Your task to perform on an android device: open app "VLC for Android" (install if not already installed) Image 0: 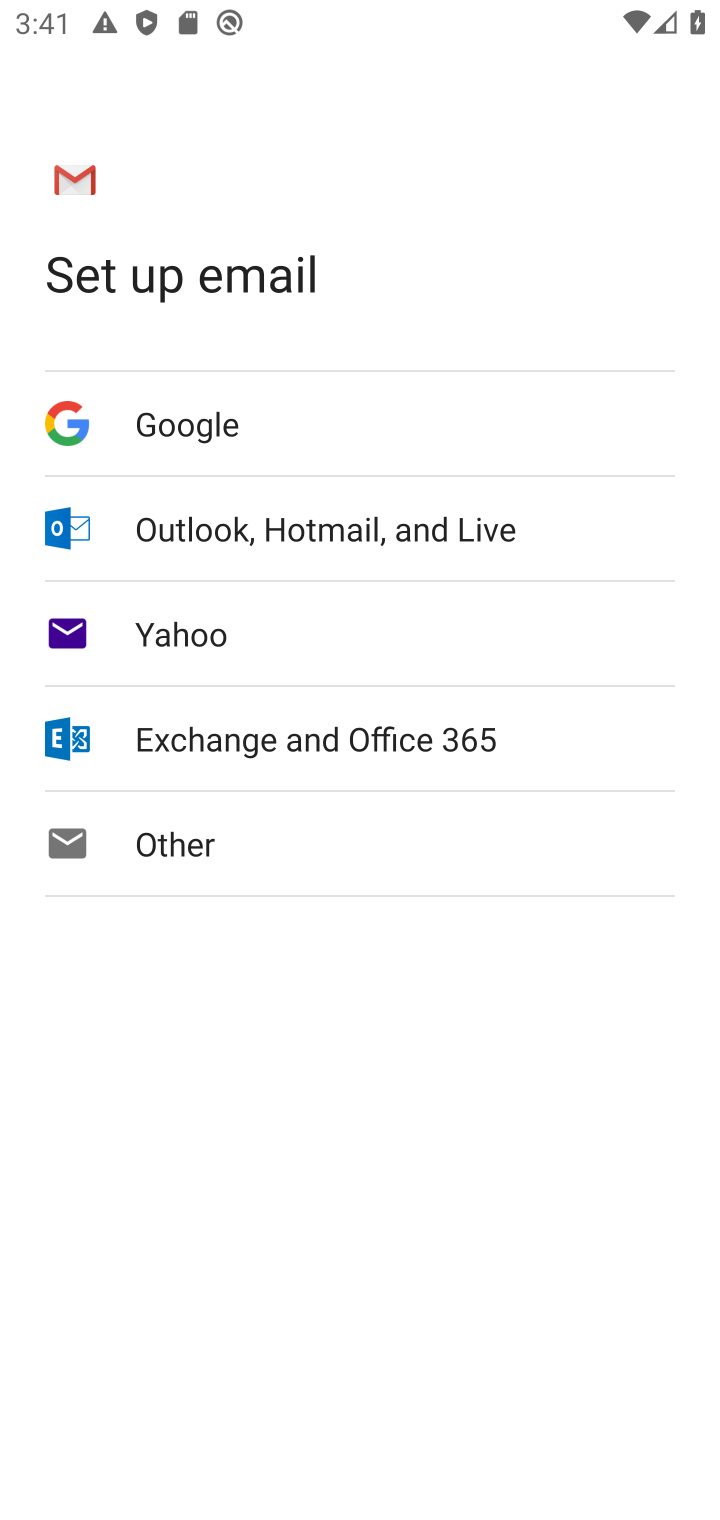
Step 0: press home button
Your task to perform on an android device: open app "VLC for Android" (install if not already installed) Image 1: 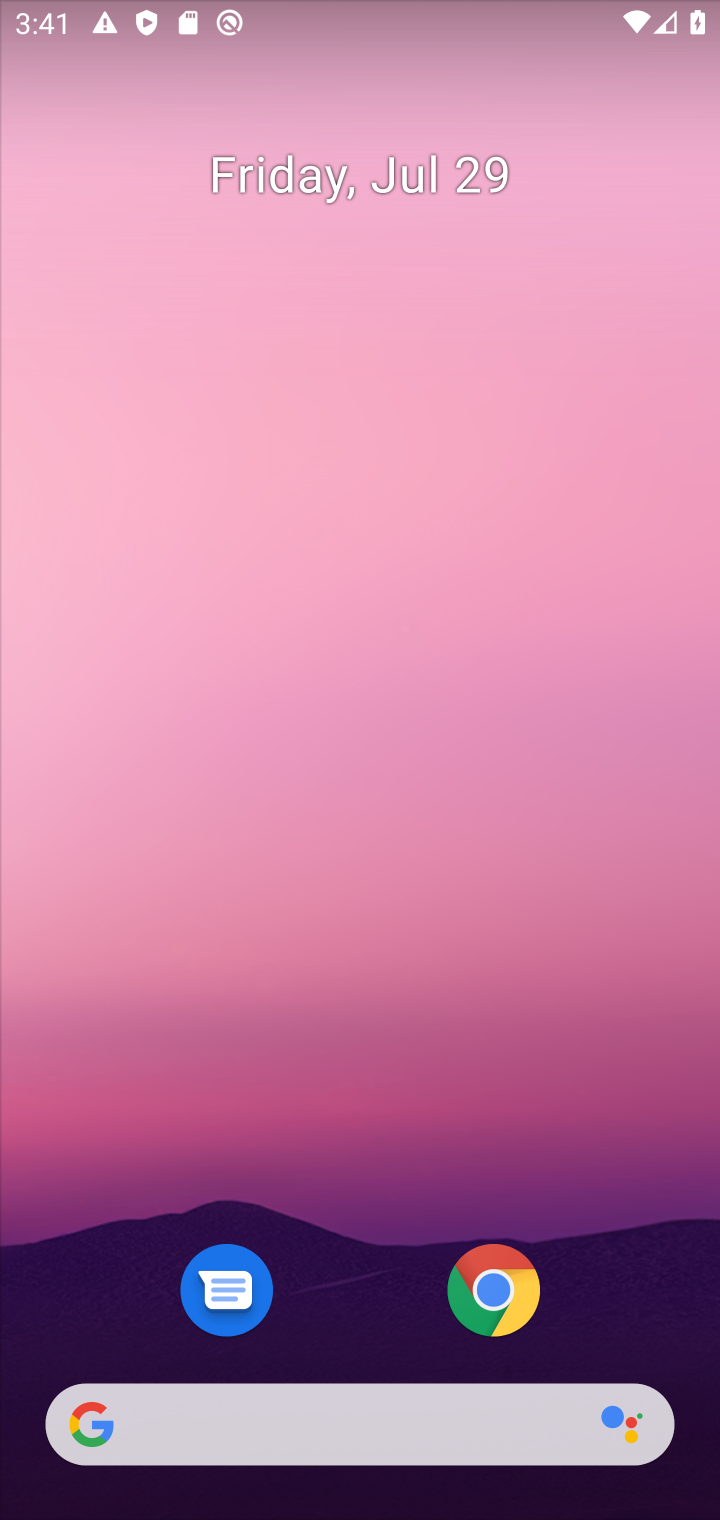
Step 1: drag from (445, 9) to (295, 1472)
Your task to perform on an android device: open app "VLC for Android" (install if not already installed) Image 2: 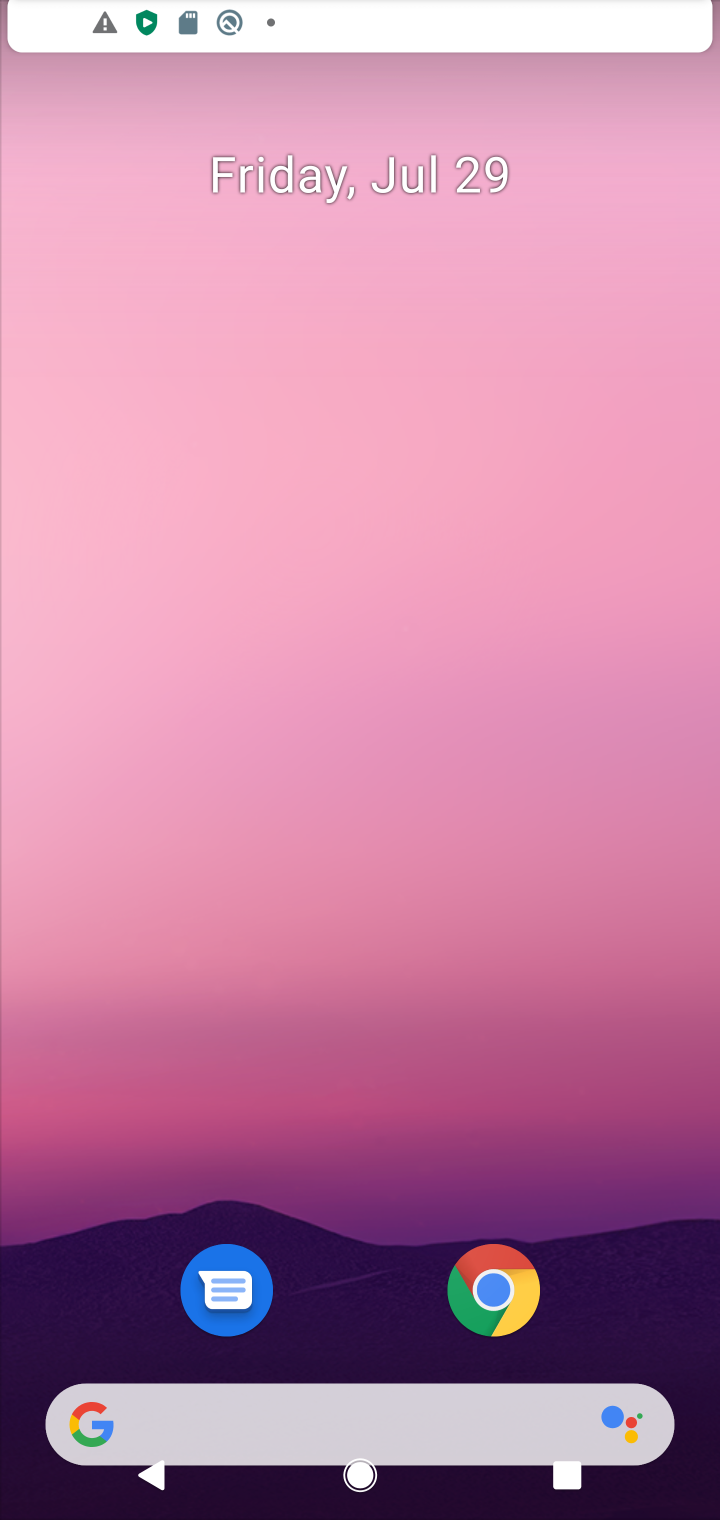
Step 2: drag from (391, 579) to (391, 232)
Your task to perform on an android device: open app "VLC for Android" (install if not already installed) Image 3: 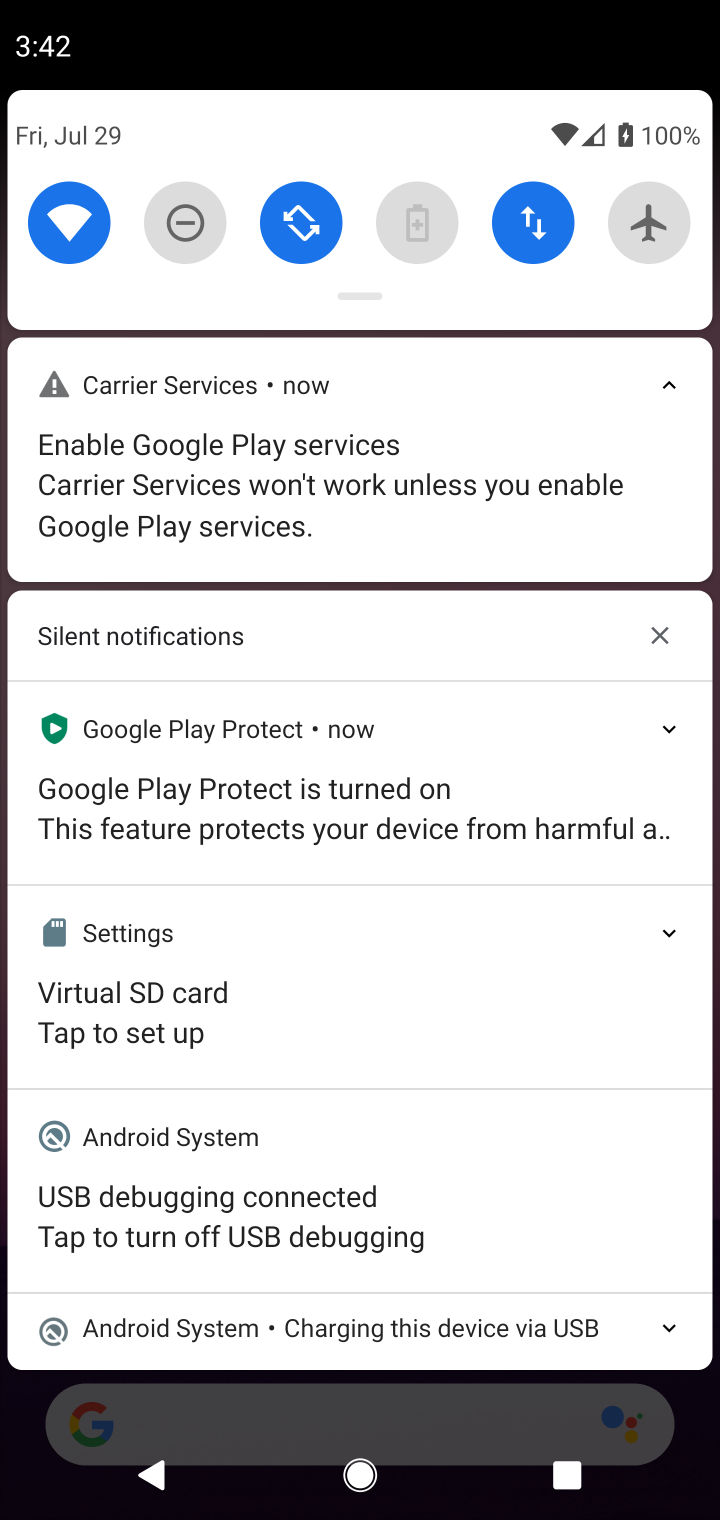
Step 3: press back button
Your task to perform on an android device: open app "VLC for Android" (install if not already installed) Image 4: 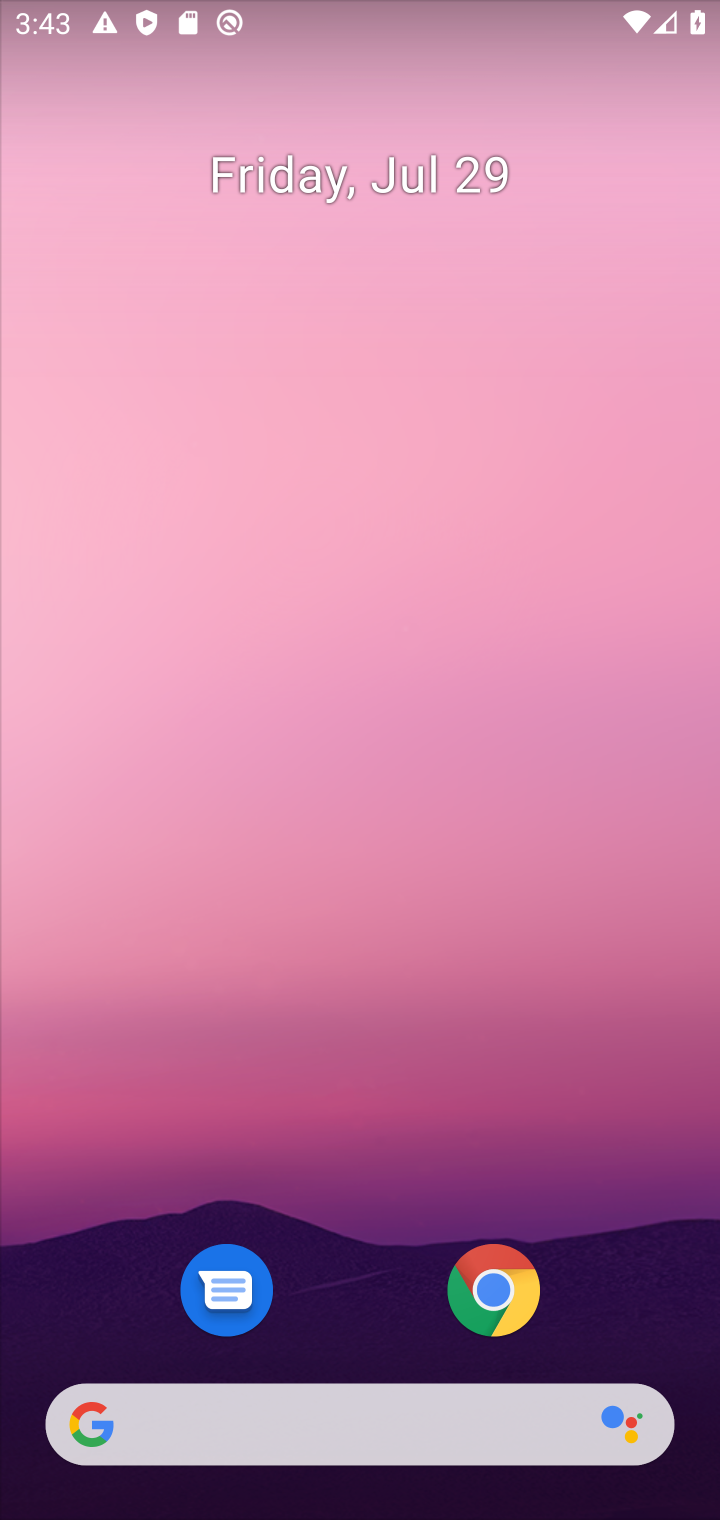
Step 4: drag from (557, 1402) to (549, 597)
Your task to perform on an android device: open app "VLC for Android" (install if not already installed) Image 5: 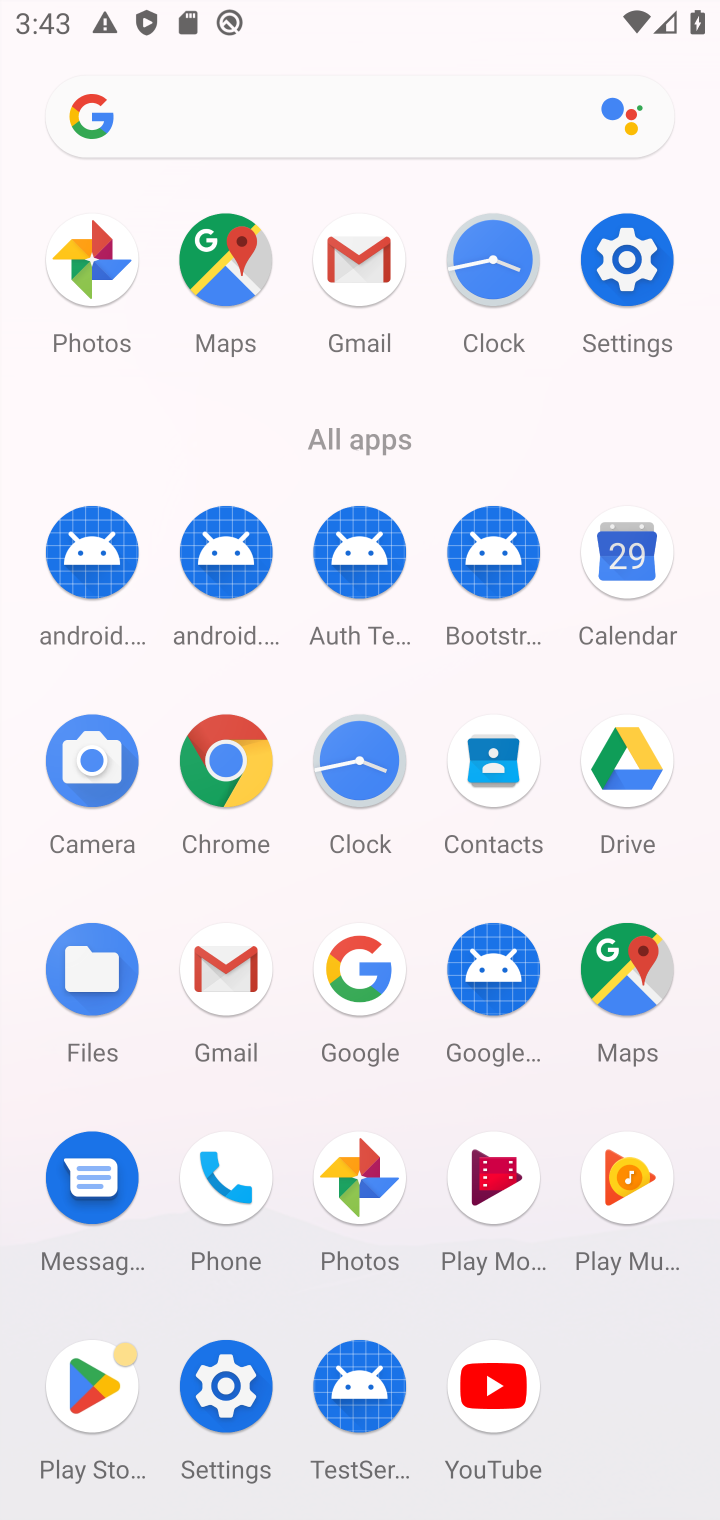
Step 5: click (119, 1377)
Your task to perform on an android device: open app "VLC for Android" (install if not already installed) Image 6: 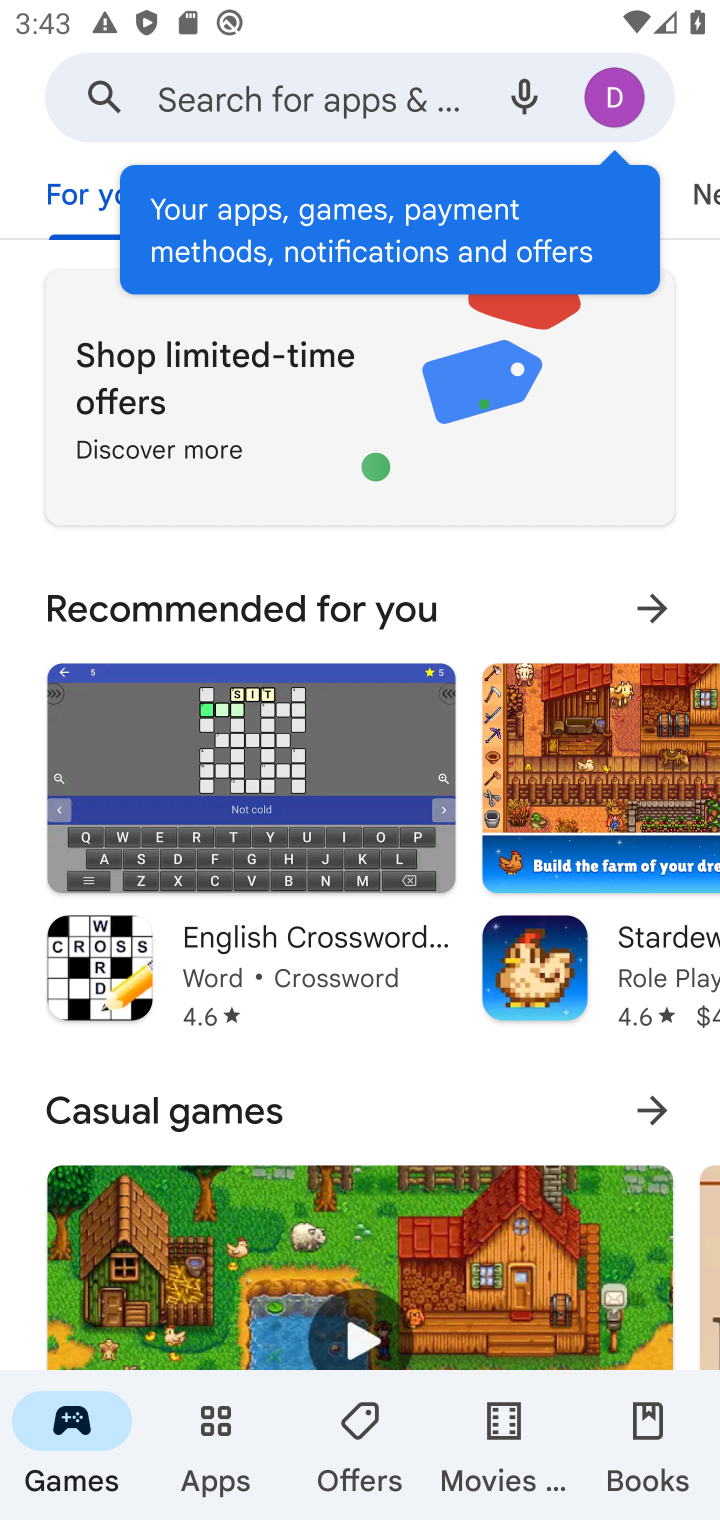
Step 6: click (367, 113)
Your task to perform on an android device: open app "VLC for Android" (install if not already installed) Image 7: 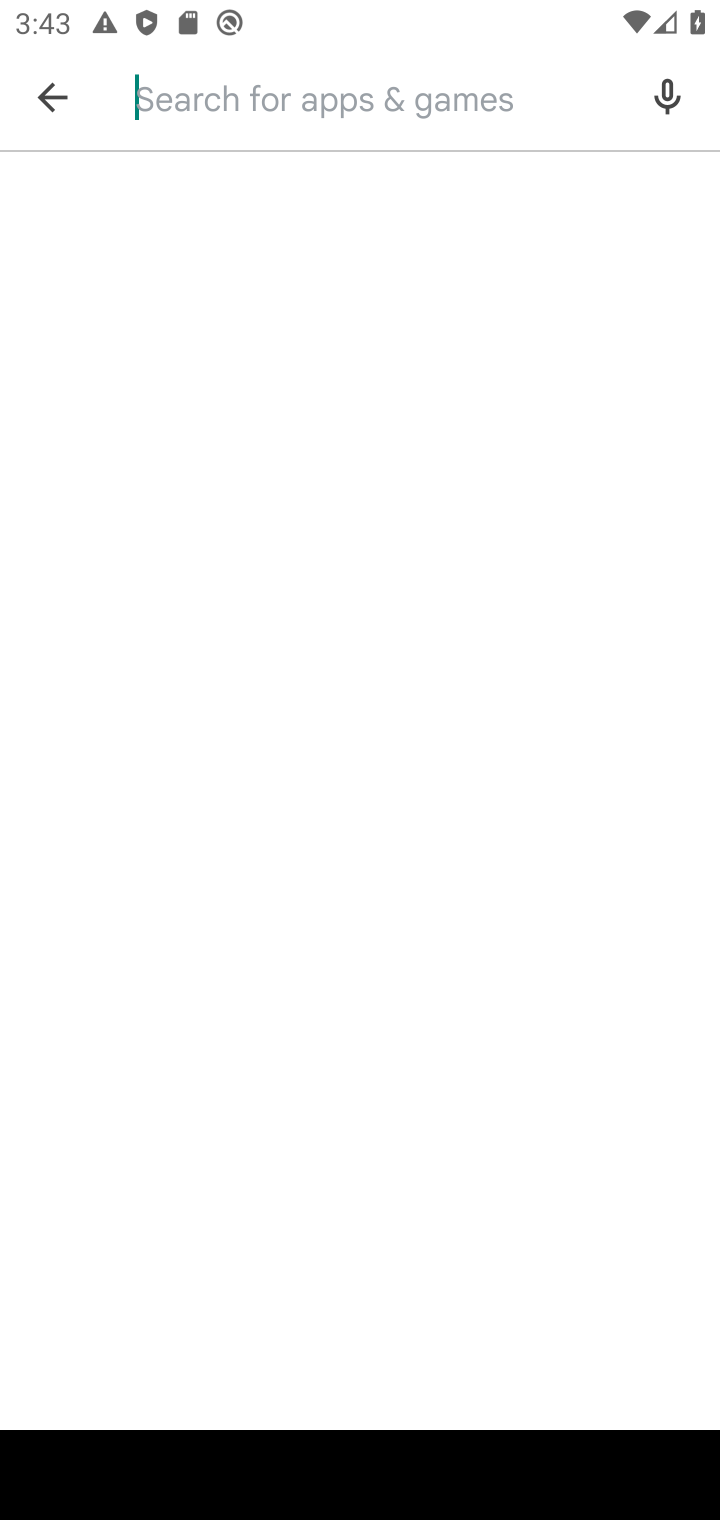
Step 7: type "HBO Max: Stream TV & Movi"
Your task to perform on an android device: open app "VLC for Android" (install if not already installed) Image 8: 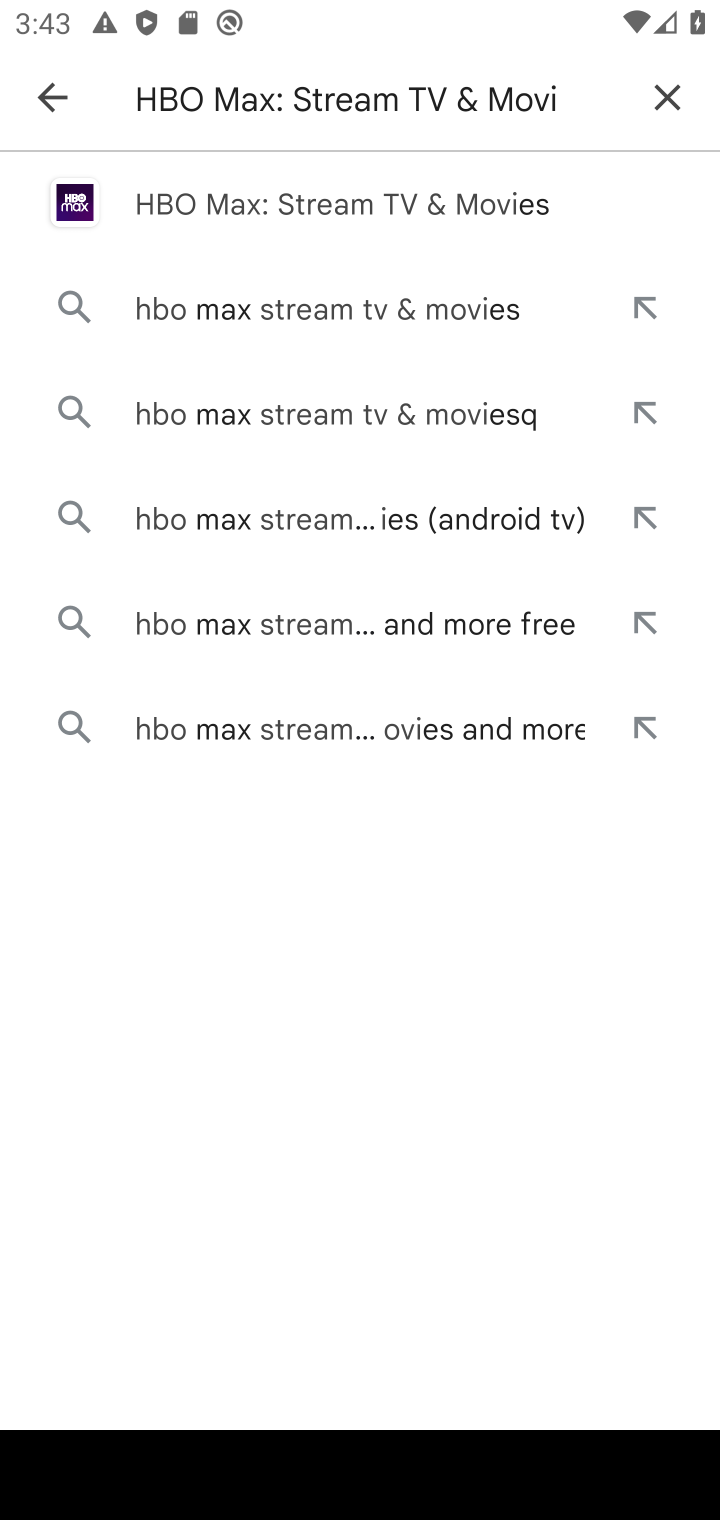
Step 8: click (657, 103)
Your task to perform on an android device: open app "VLC for Android" (install if not already installed) Image 9: 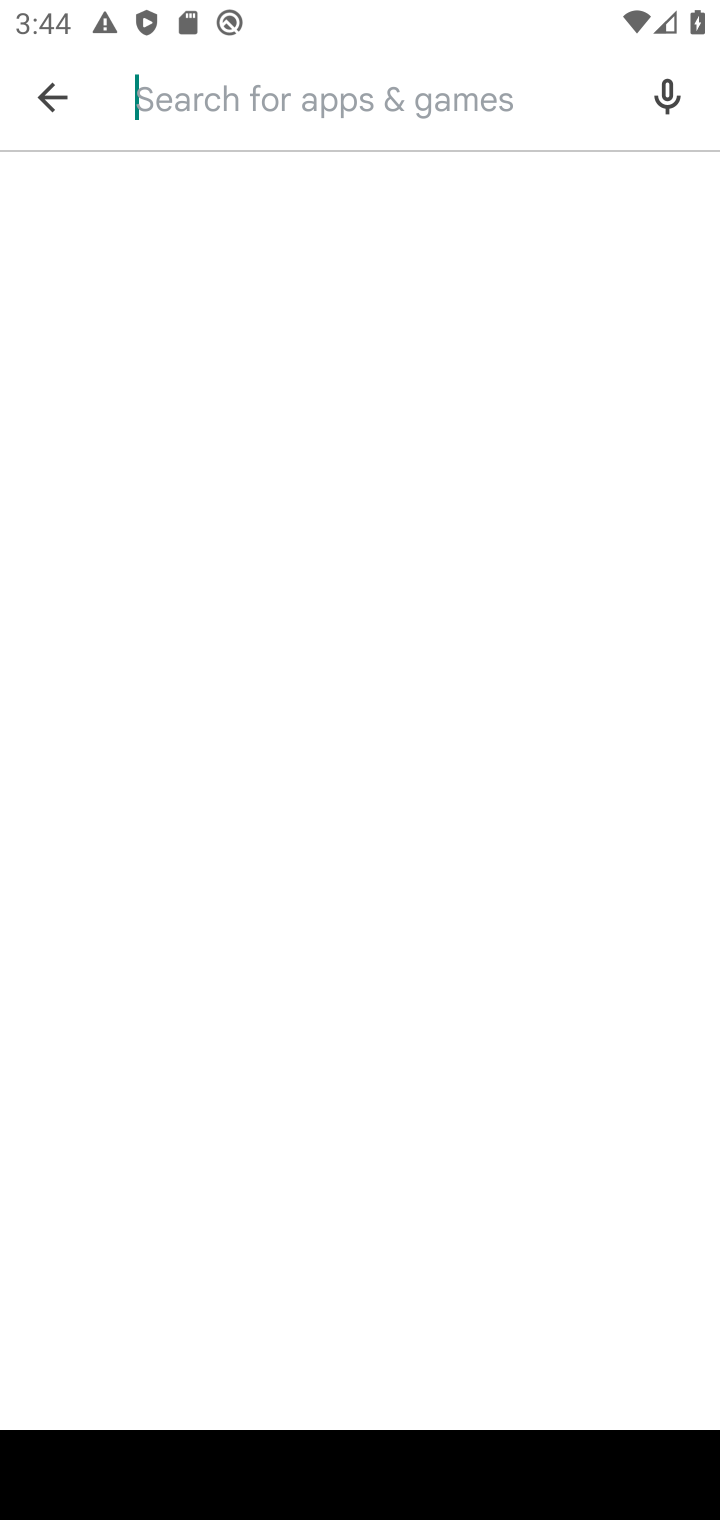
Step 9: type "VLC for Android"
Your task to perform on an android device: open app "VLC for Android" (install if not already installed) Image 10: 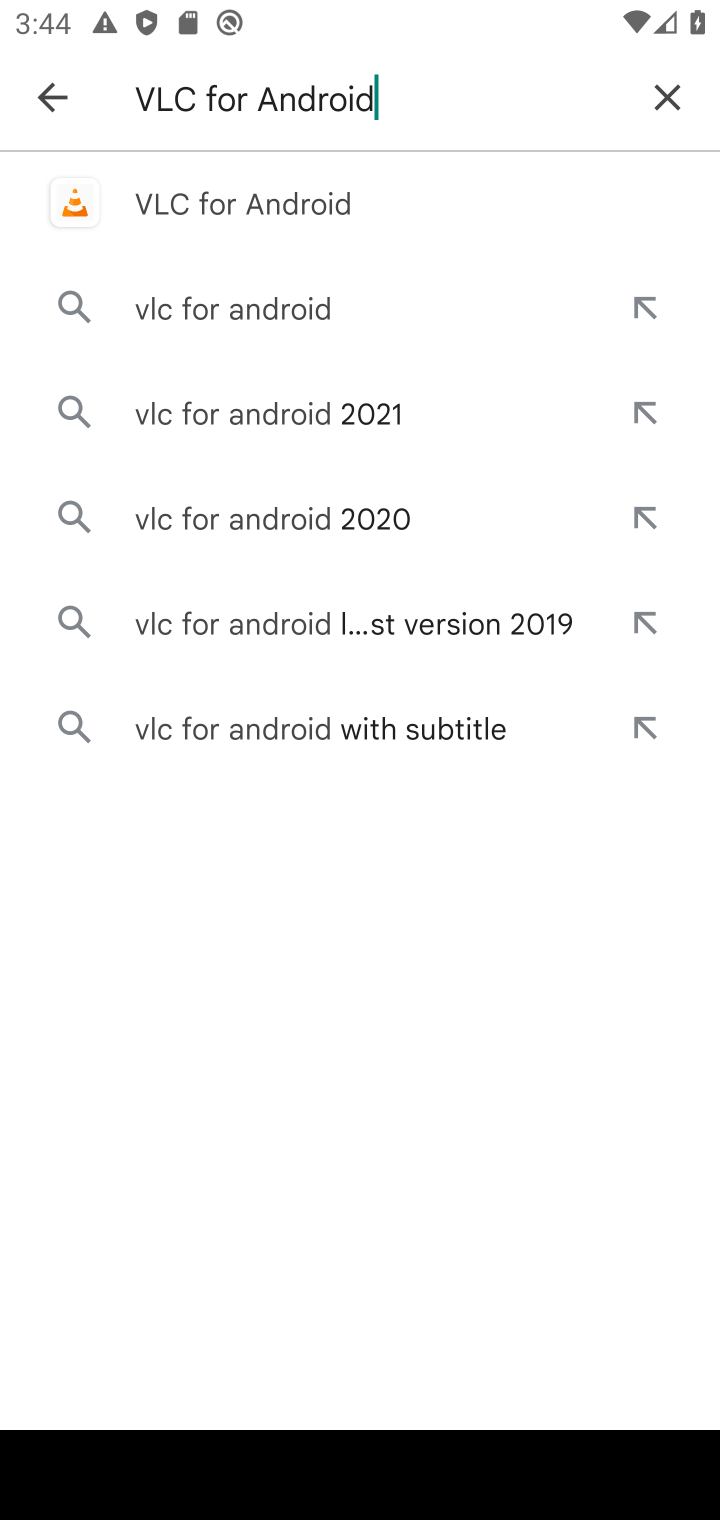
Step 10: click (238, 207)
Your task to perform on an android device: open app "VLC for Android" (install if not already installed) Image 11: 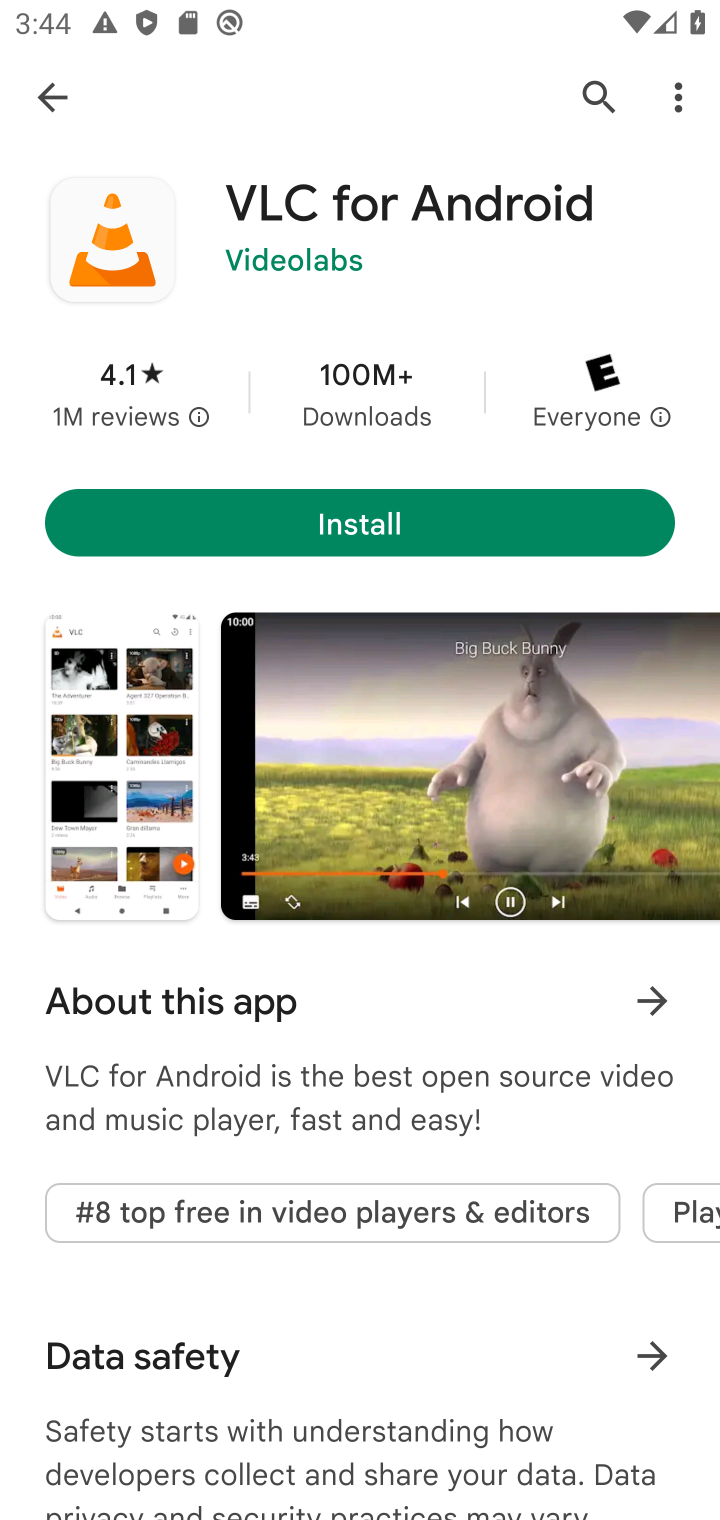
Step 11: click (132, 524)
Your task to perform on an android device: open app "VLC for Android" (install if not already installed) Image 12: 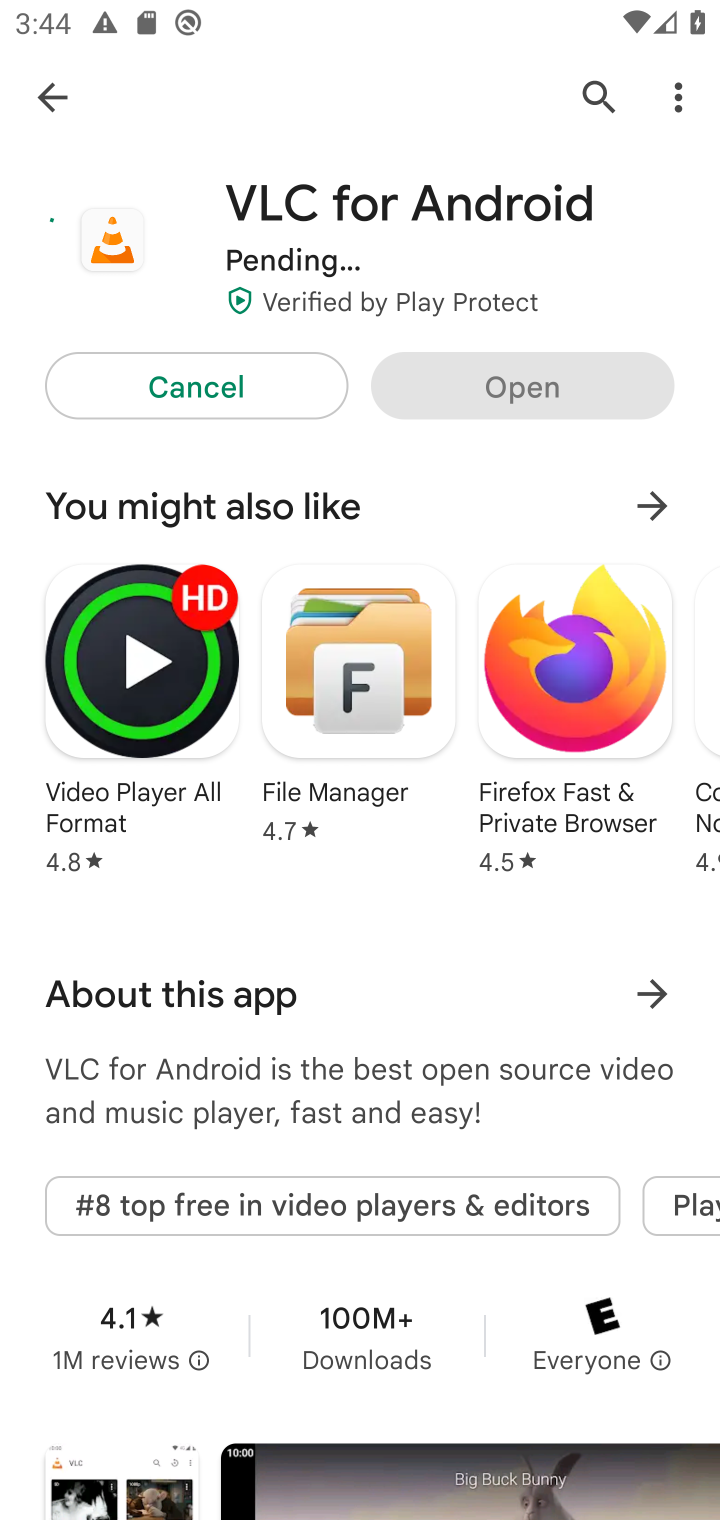
Step 12: task complete